Your task to perform on an android device: toggle sleep mode Image 0: 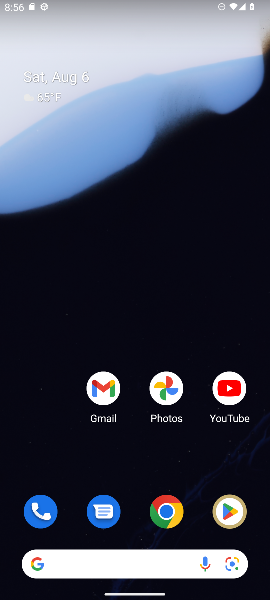
Step 0: press home button
Your task to perform on an android device: toggle sleep mode Image 1: 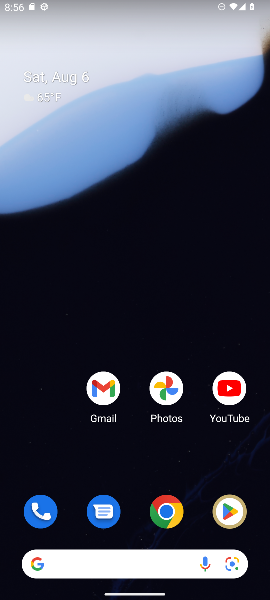
Step 1: drag from (67, 428) to (91, 51)
Your task to perform on an android device: toggle sleep mode Image 2: 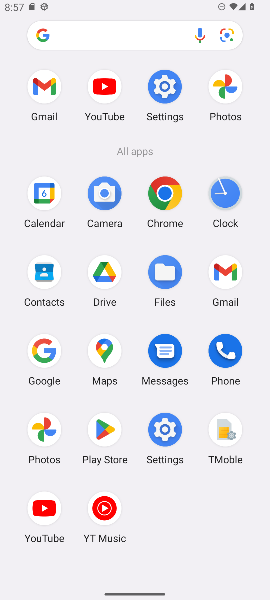
Step 2: click (177, 97)
Your task to perform on an android device: toggle sleep mode Image 3: 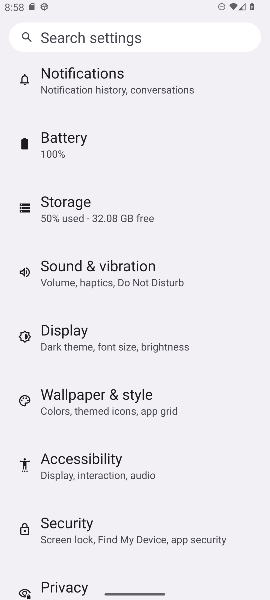
Step 3: click (78, 344)
Your task to perform on an android device: toggle sleep mode Image 4: 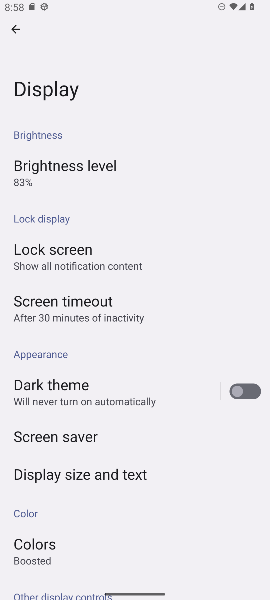
Step 4: task complete